Your task to perform on an android device: Go to display settings Image 0: 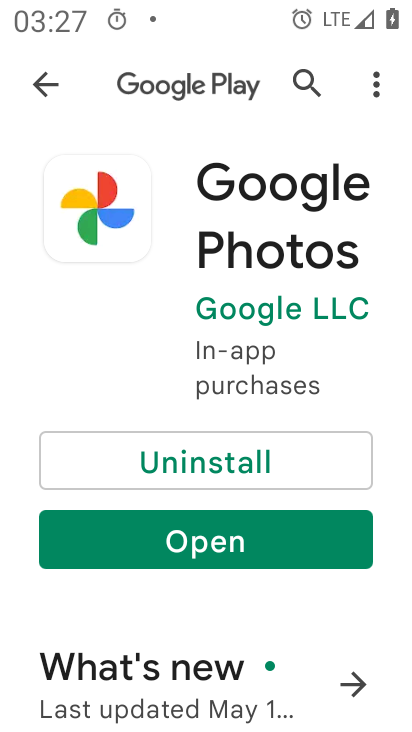
Step 0: press back button
Your task to perform on an android device: Go to display settings Image 1: 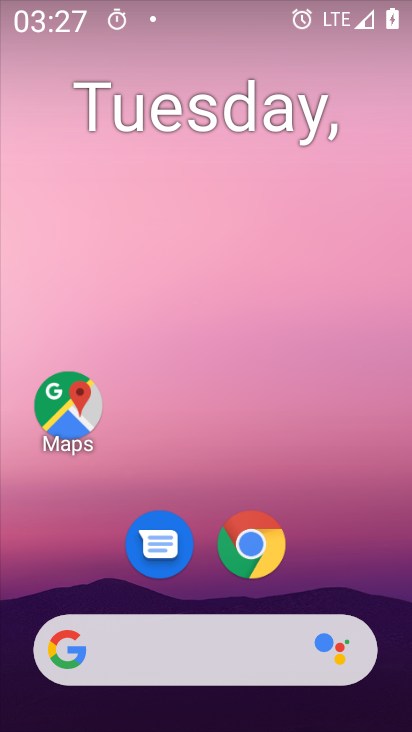
Step 1: drag from (349, 549) to (243, 98)
Your task to perform on an android device: Go to display settings Image 2: 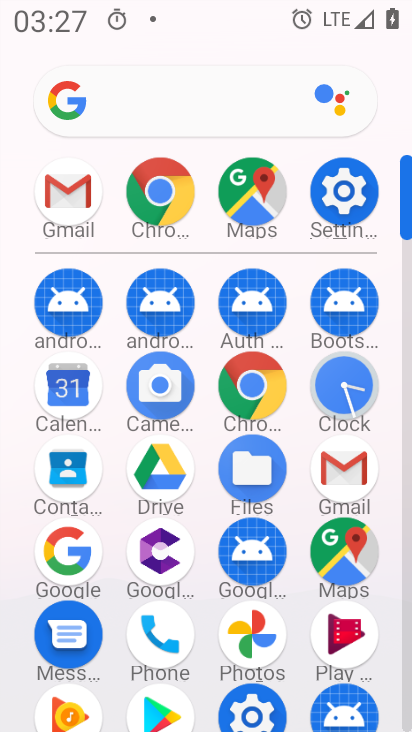
Step 2: drag from (5, 538) to (23, 228)
Your task to perform on an android device: Go to display settings Image 3: 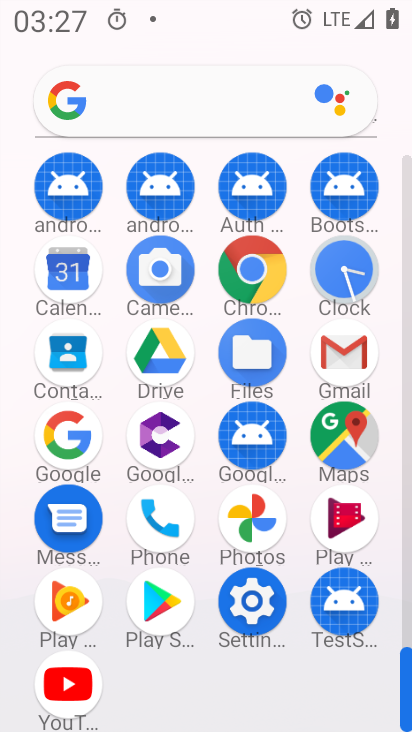
Step 3: click (246, 594)
Your task to perform on an android device: Go to display settings Image 4: 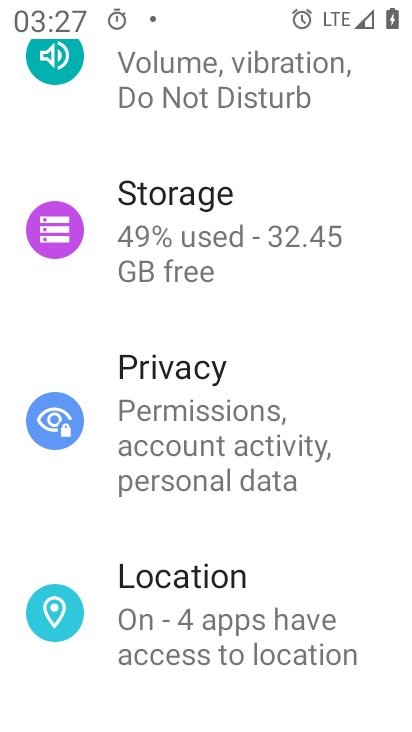
Step 4: drag from (272, 163) to (263, 590)
Your task to perform on an android device: Go to display settings Image 5: 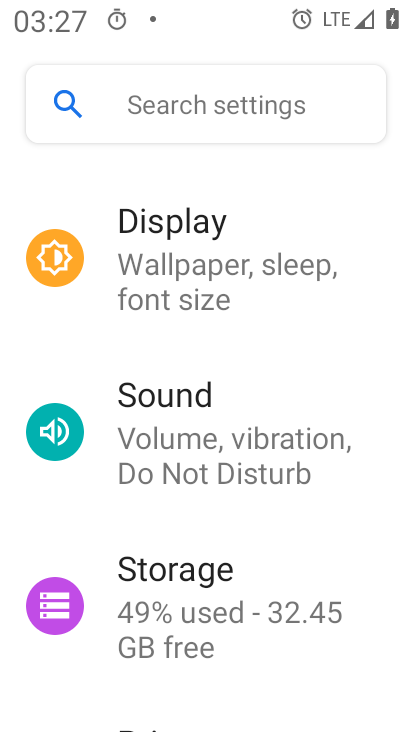
Step 5: click (215, 279)
Your task to perform on an android device: Go to display settings Image 6: 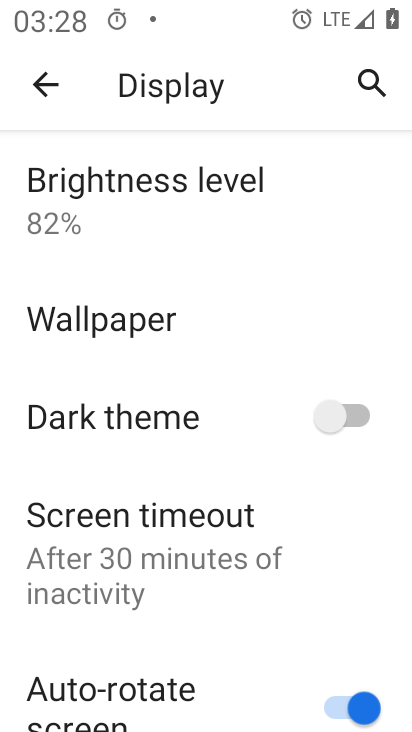
Step 6: drag from (173, 597) to (241, 162)
Your task to perform on an android device: Go to display settings Image 7: 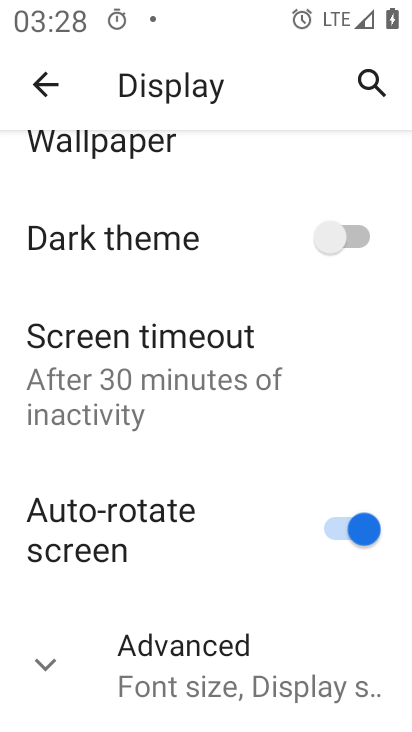
Step 7: drag from (164, 611) to (175, 429)
Your task to perform on an android device: Go to display settings Image 8: 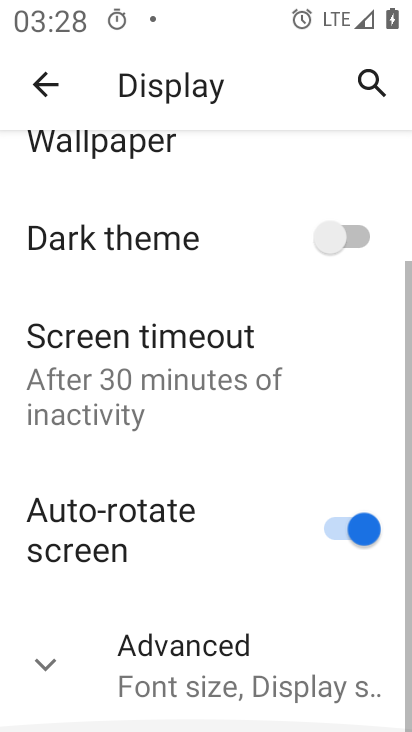
Step 8: click (47, 673)
Your task to perform on an android device: Go to display settings Image 9: 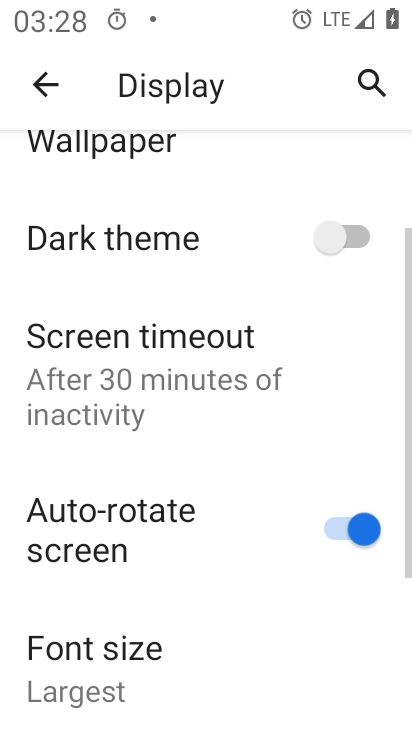
Step 9: task complete